Your task to perform on an android device: Show me popular videos on Youtube Image 0: 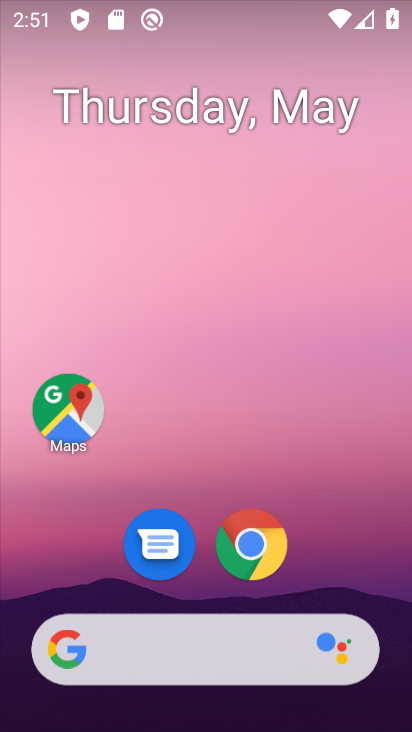
Step 0: drag from (329, 589) to (401, 105)
Your task to perform on an android device: Show me popular videos on Youtube Image 1: 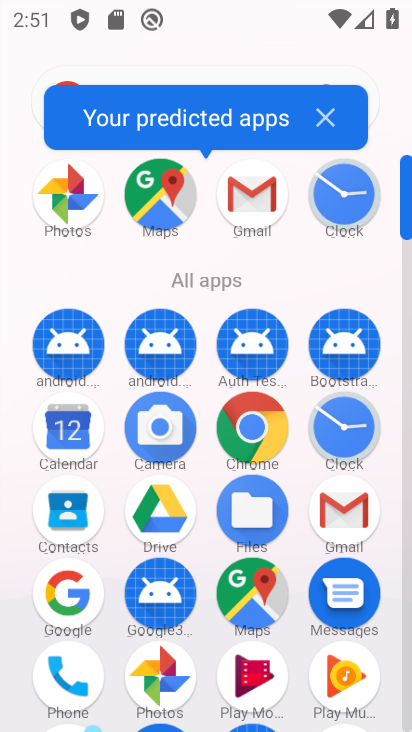
Step 1: drag from (215, 580) to (257, 361)
Your task to perform on an android device: Show me popular videos on Youtube Image 2: 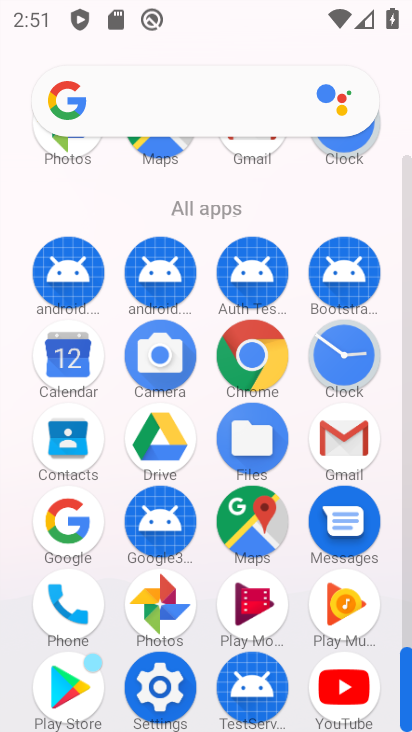
Step 2: click (360, 693)
Your task to perform on an android device: Show me popular videos on Youtube Image 3: 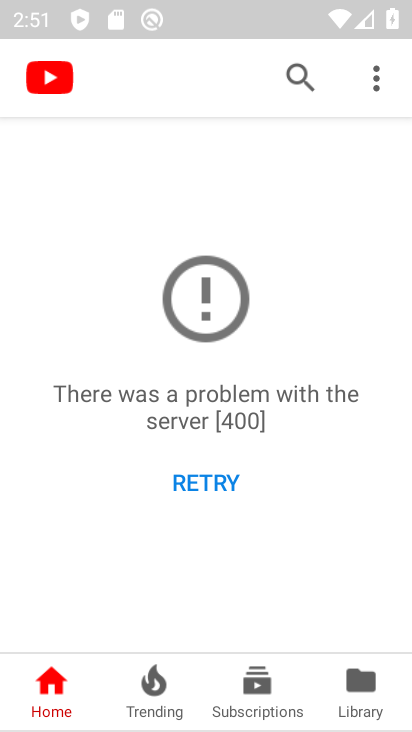
Step 3: click (159, 685)
Your task to perform on an android device: Show me popular videos on Youtube Image 4: 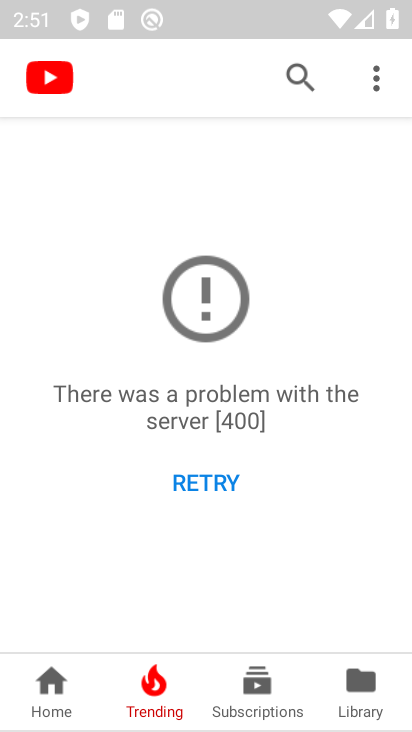
Step 4: task complete